Your task to perform on an android device: open device folders in google photos Image 0: 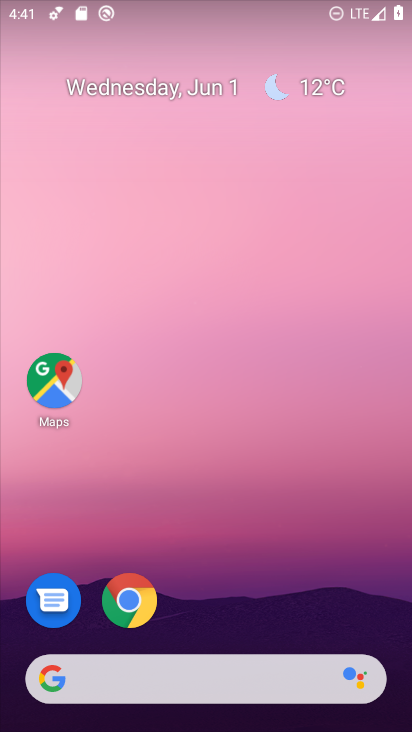
Step 0: drag from (339, 602) to (314, 158)
Your task to perform on an android device: open device folders in google photos Image 1: 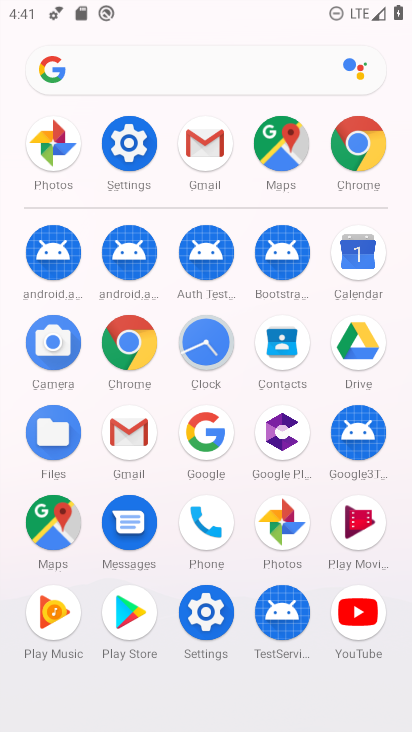
Step 1: click (283, 522)
Your task to perform on an android device: open device folders in google photos Image 2: 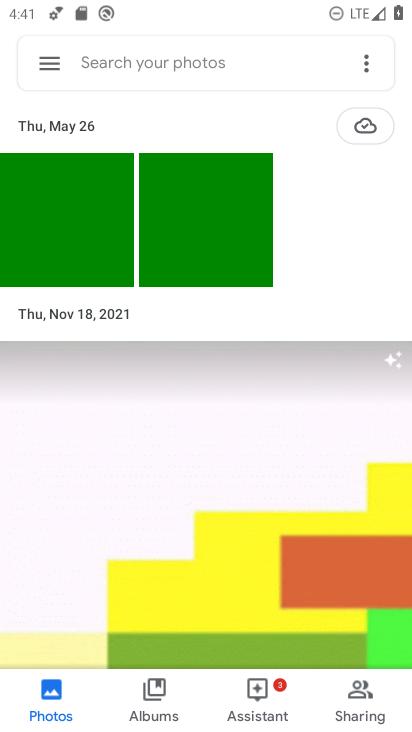
Step 2: click (53, 59)
Your task to perform on an android device: open device folders in google photos Image 3: 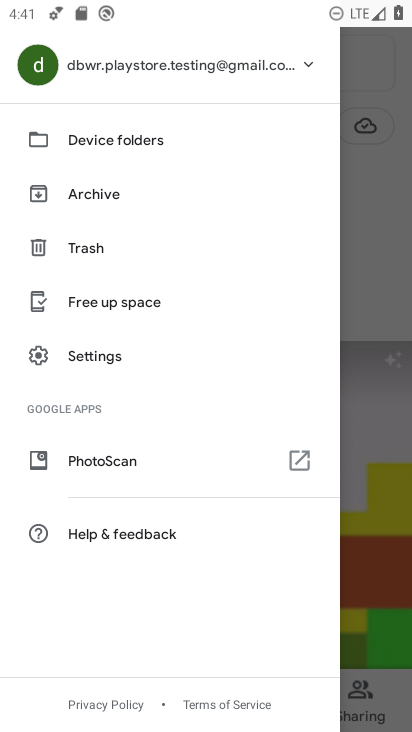
Step 3: click (99, 132)
Your task to perform on an android device: open device folders in google photos Image 4: 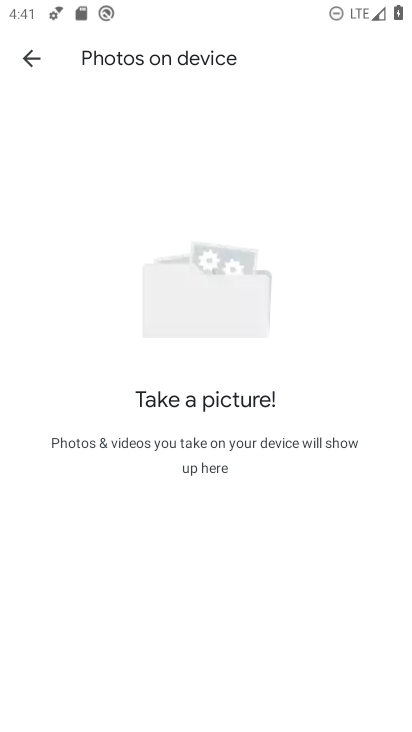
Step 4: task complete